Your task to perform on an android device: Show the shopping cart on amazon. Search for "razer thresher" on amazon, select the first entry, add it to the cart, then select checkout. Image 0: 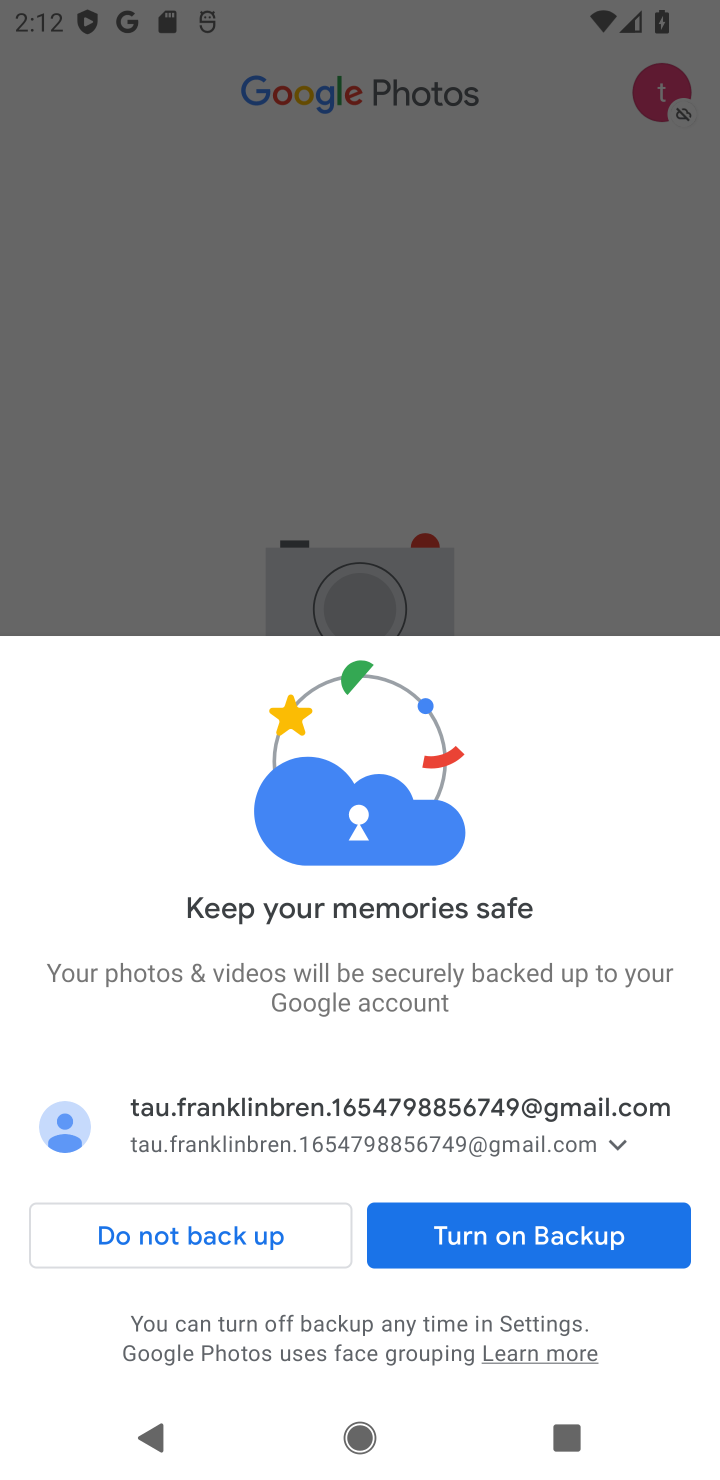
Step 0: press home button
Your task to perform on an android device: Show the shopping cart on amazon. Search for "razer thresher" on amazon, select the first entry, add it to the cart, then select checkout. Image 1: 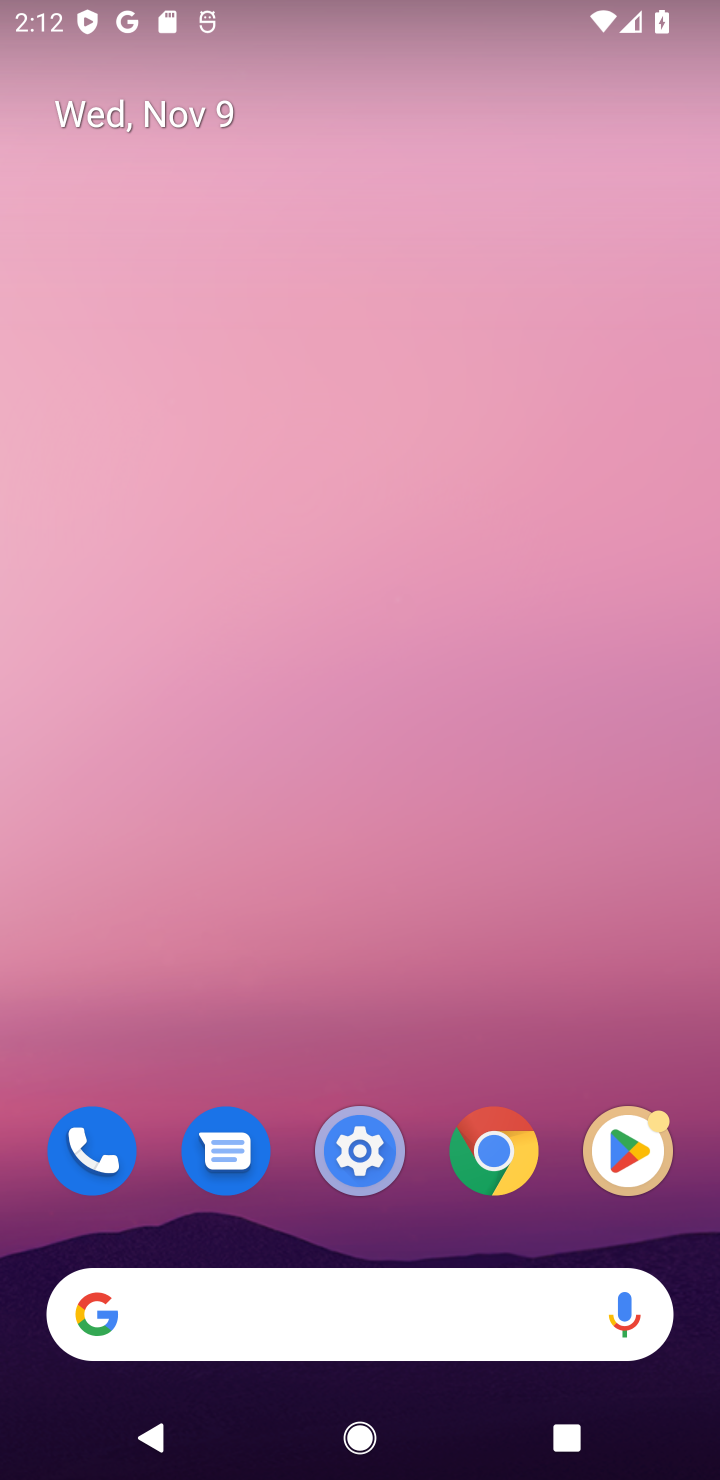
Step 1: click (374, 1321)
Your task to perform on an android device: Show the shopping cart on amazon. Search for "razer thresher" on amazon, select the first entry, add it to the cart, then select checkout. Image 2: 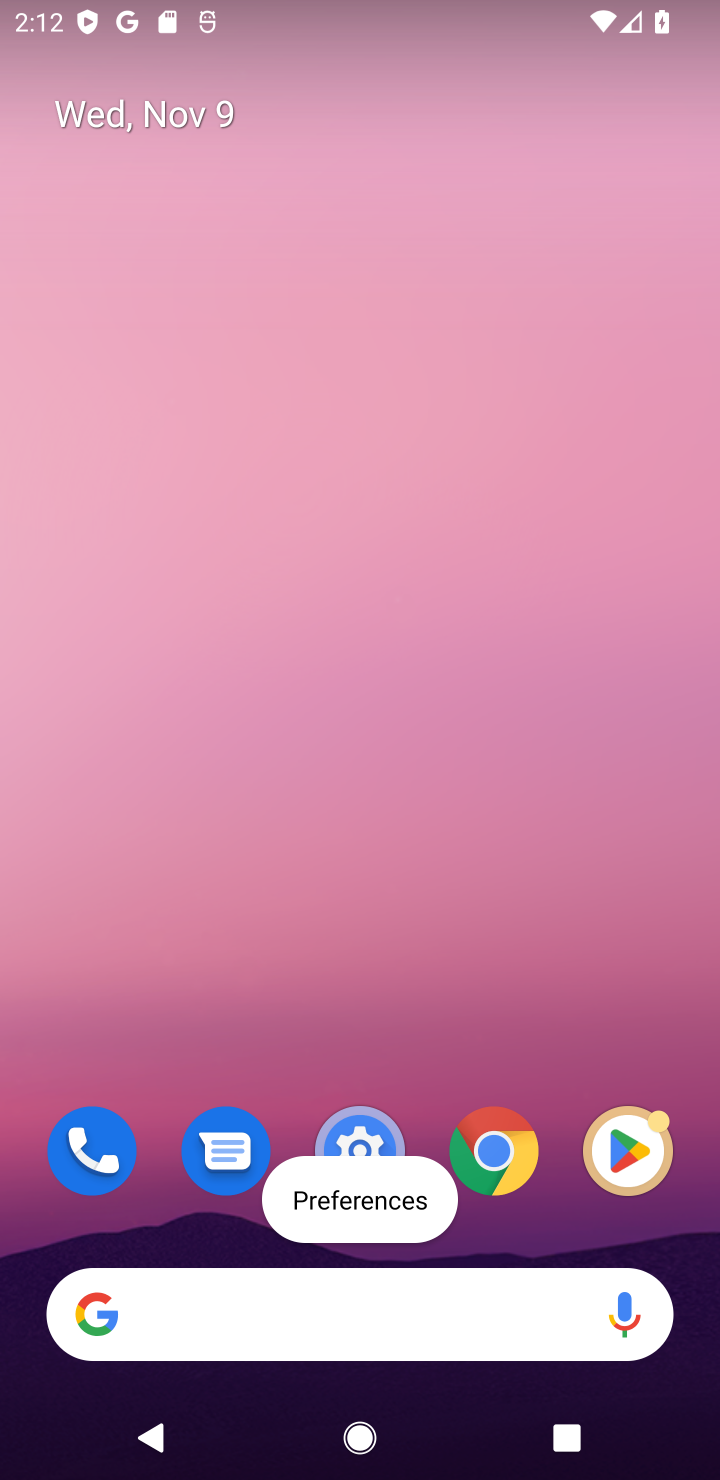
Step 2: click (257, 1321)
Your task to perform on an android device: Show the shopping cart on amazon. Search for "razer thresher" on amazon, select the first entry, add it to the cart, then select checkout. Image 3: 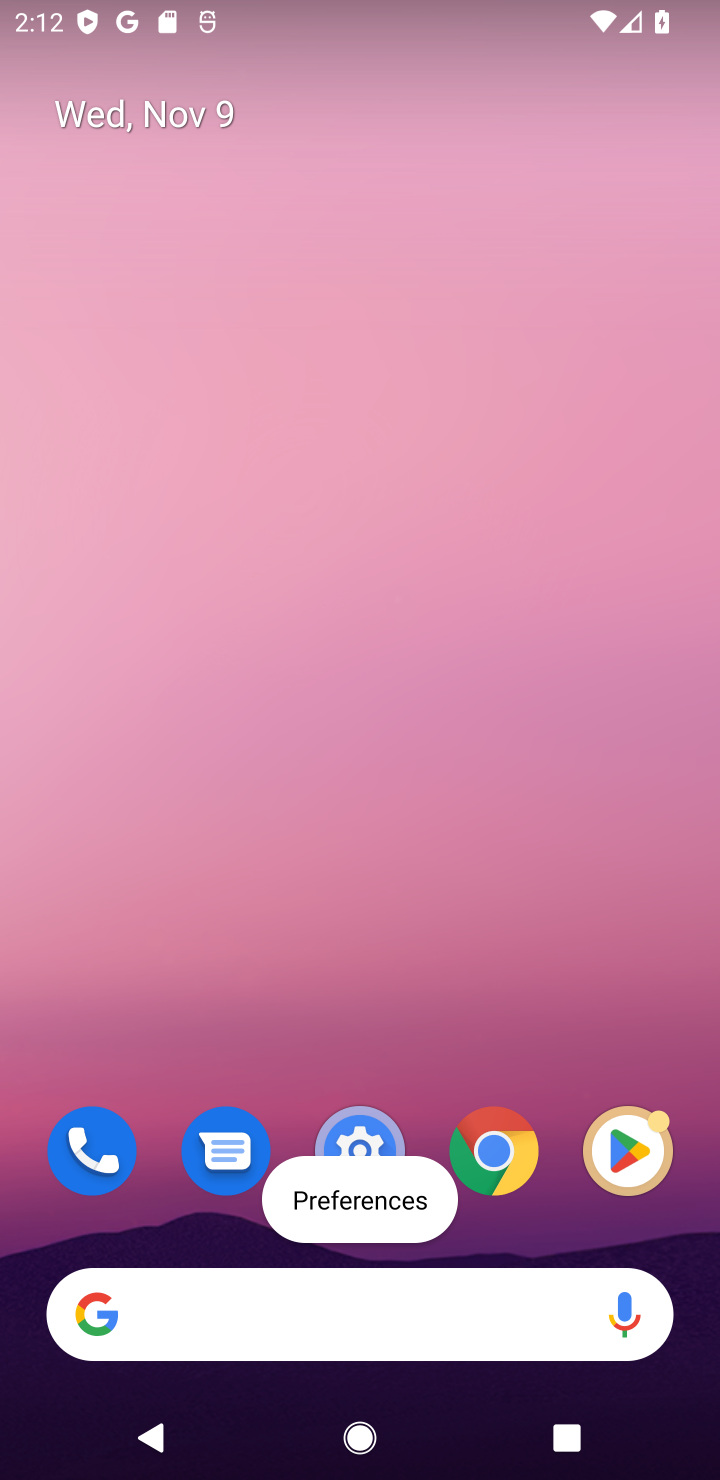
Step 3: click (257, 1321)
Your task to perform on an android device: Show the shopping cart on amazon. Search for "razer thresher" on amazon, select the first entry, add it to the cart, then select checkout. Image 4: 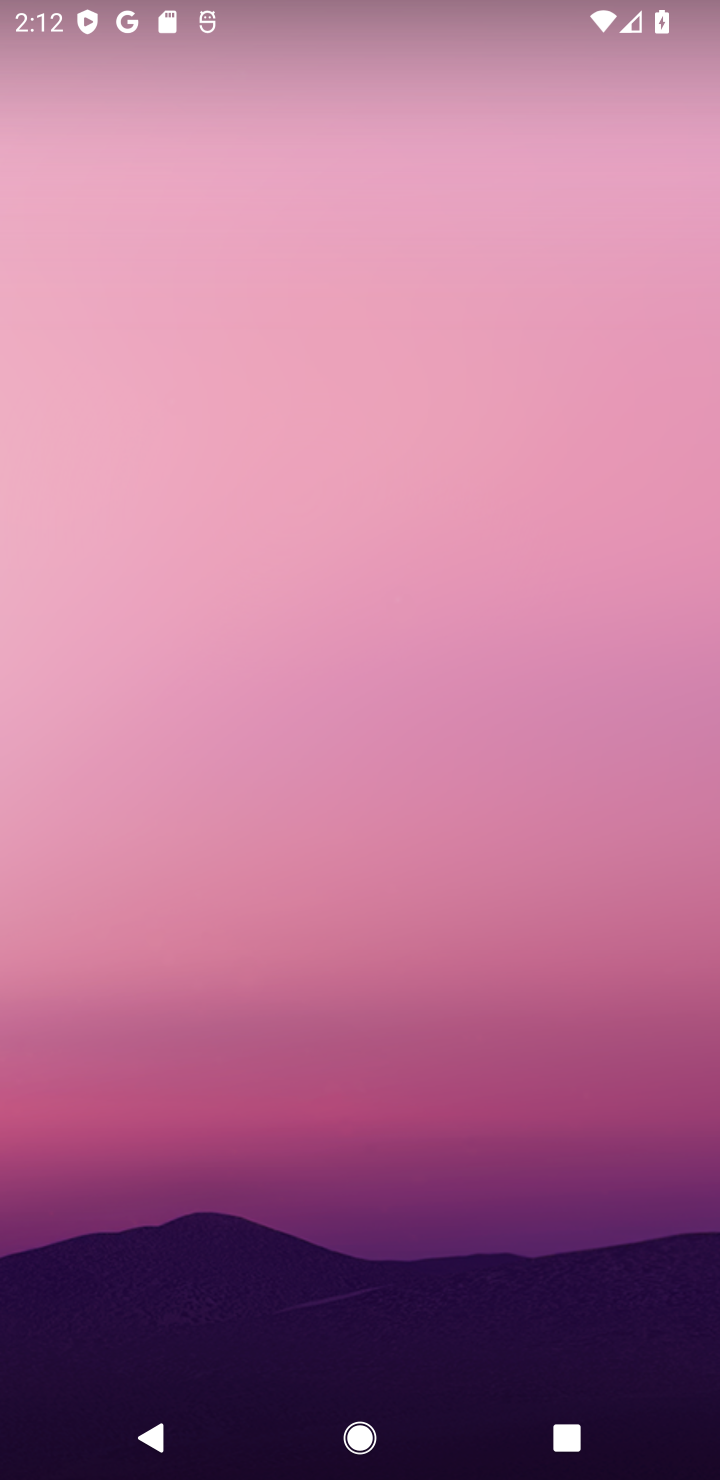
Step 4: click (254, 1319)
Your task to perform on an android device: Show the shopping cart on amazon. Search for "razer thresher" on amazon, select the first entry, add it to the cart, then select checkout. Image 5: 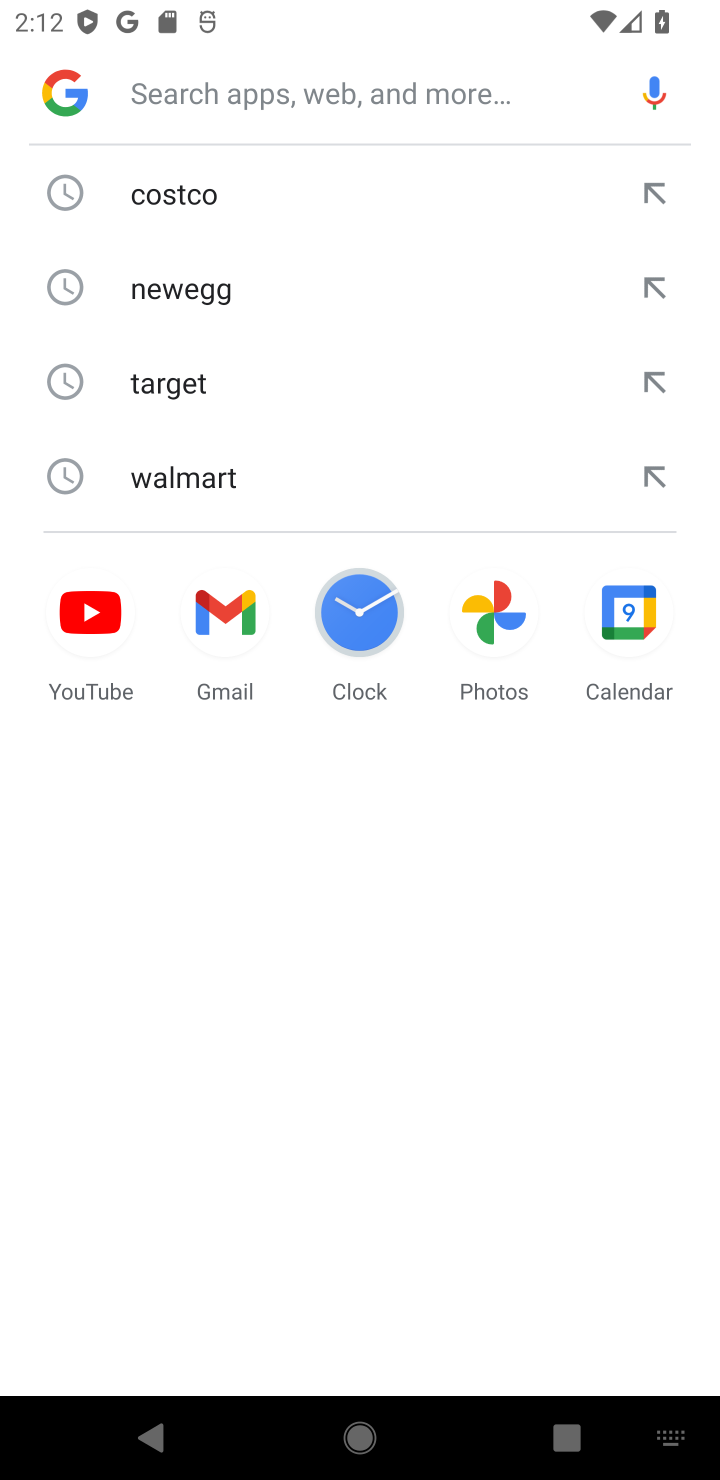
Step 5: type "amazon"
Your task to perform on an android device: Show the shopping cart on amazon. Search for "razer thresher" on amazon, select the first entry, add it to the cart, then select checkout. Image 6: 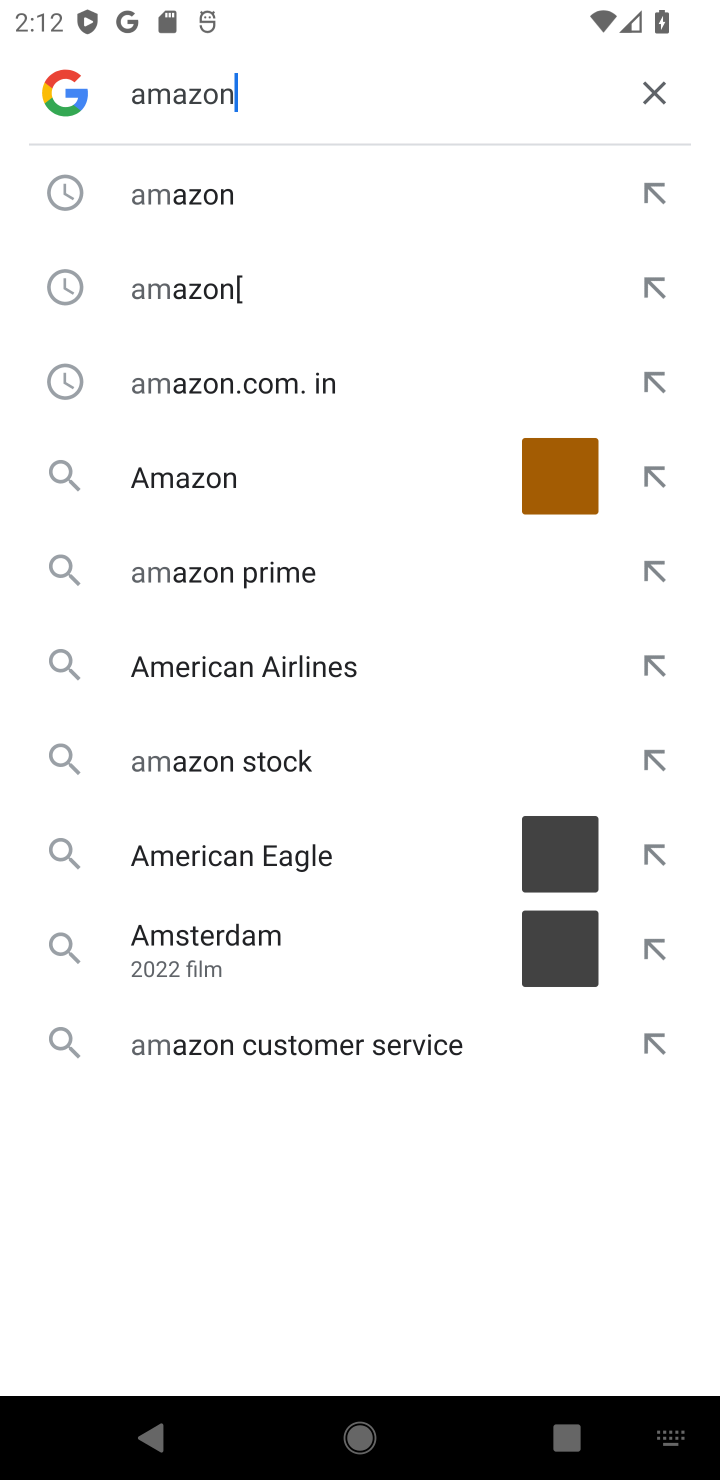
Step 6: type ""
Your task to perform on an android device: Show the shopping cart on amazon. Search for "razer thresher" on amazon, select the first entry, add it to the cart, then select checkout. Image 7: 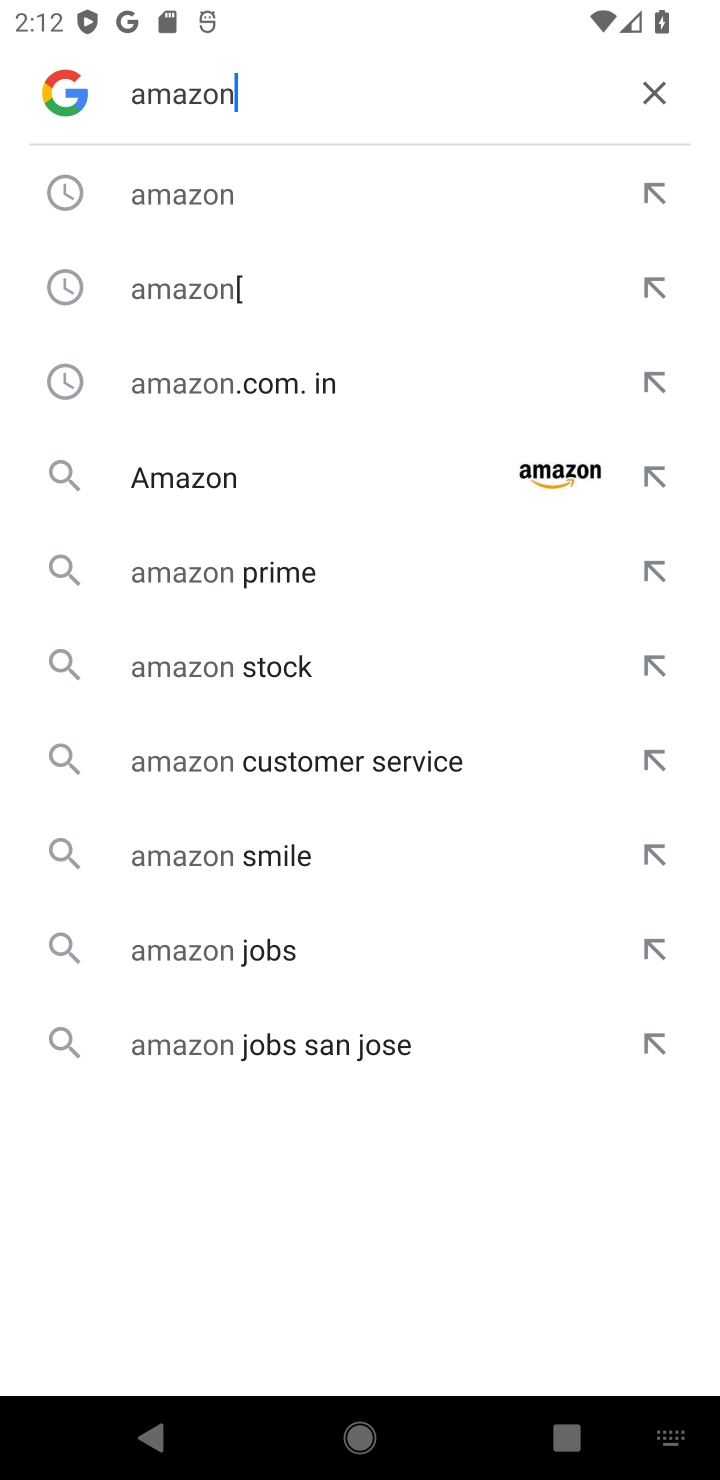
Step 7: press enter
Your task to perform on an android device: Show the shopping cart on amazon. Search for "razer thresher" on amazon, select the first entry, add it to the cart, then select checkout. Image 8: 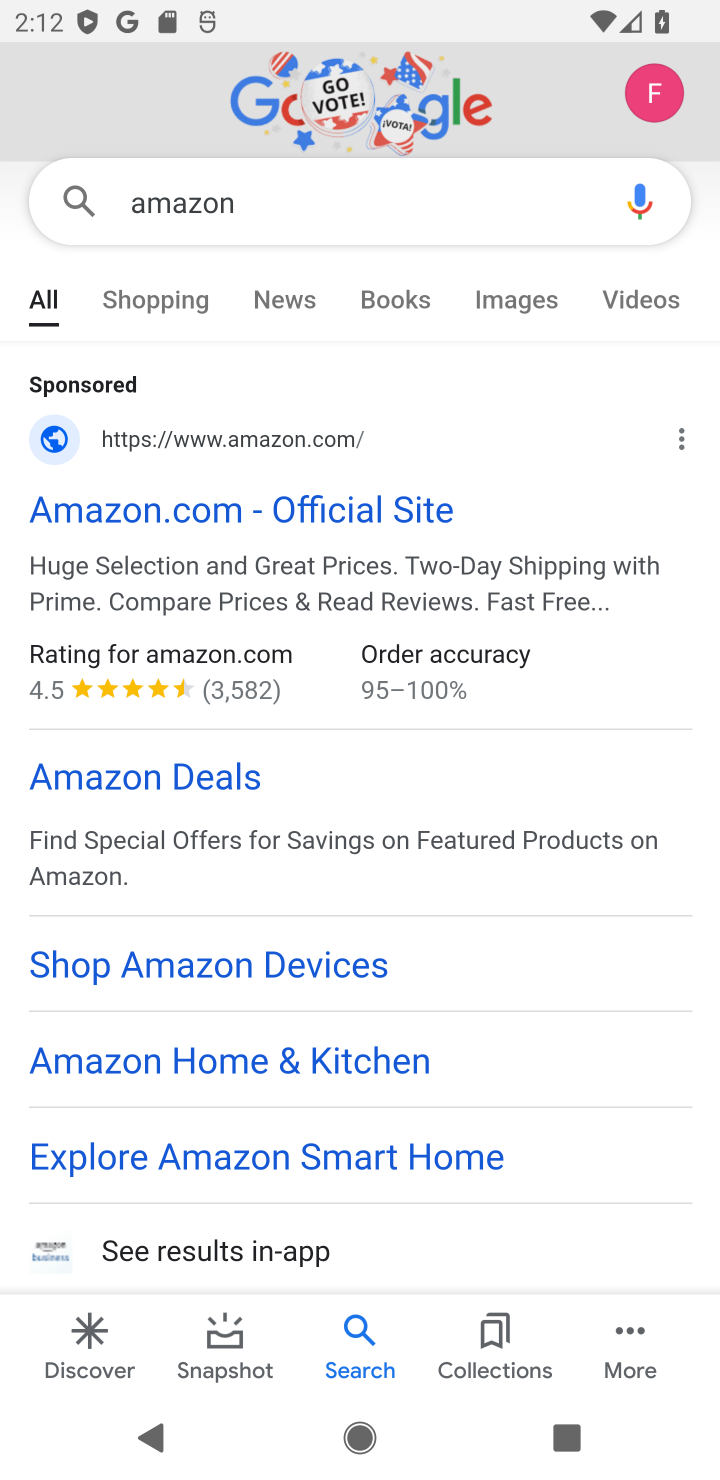
Step 8: click (184, 516)
Your task to perform on an android device: Show the shopping cart on amazon. Search for "razer thresher" on amazon, select the first entry, add it to the cart, then select checkout. Image 9: 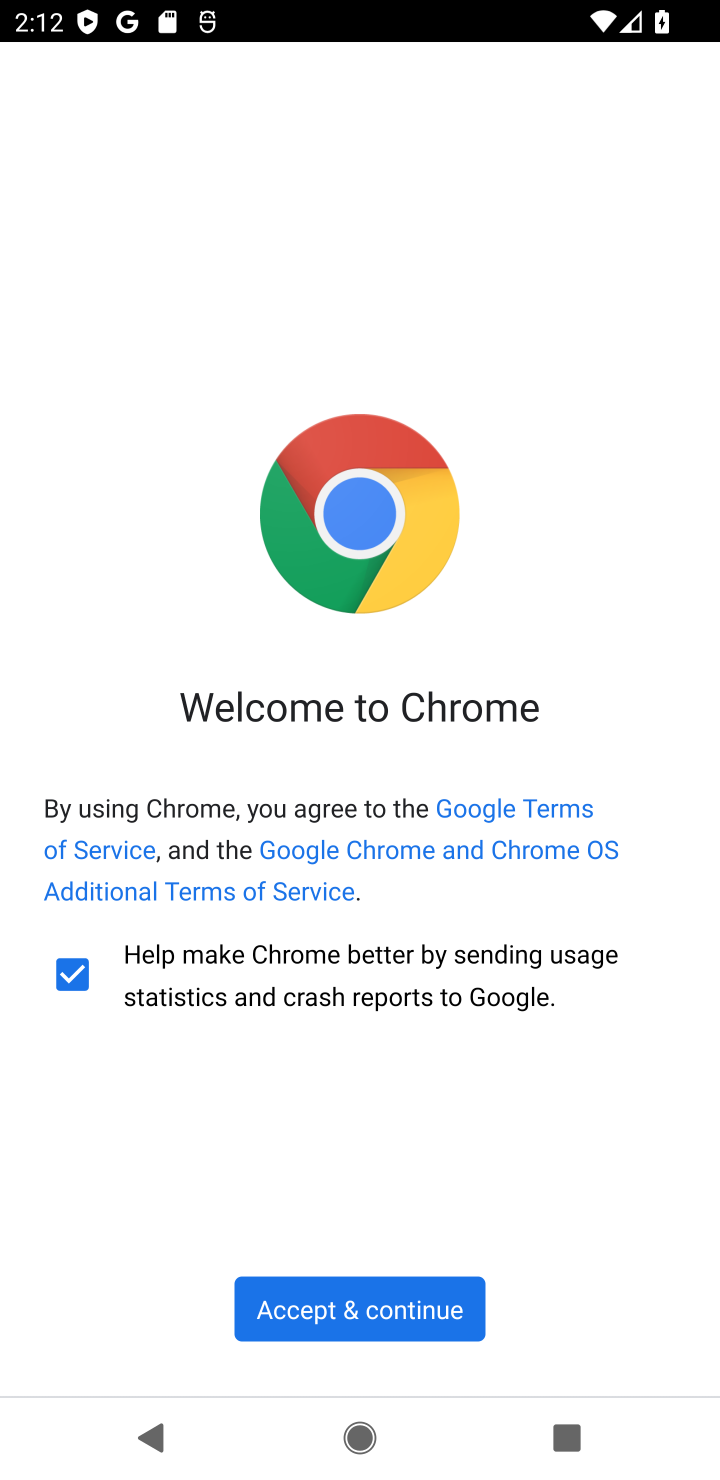
Step 9: click (421, 1295)
Your task to perform on an android device: Show the shopping cart on amazon. Search for "razer thresher" on amazon, select the first entry, add it to the cart, then select checkout. Image 10: 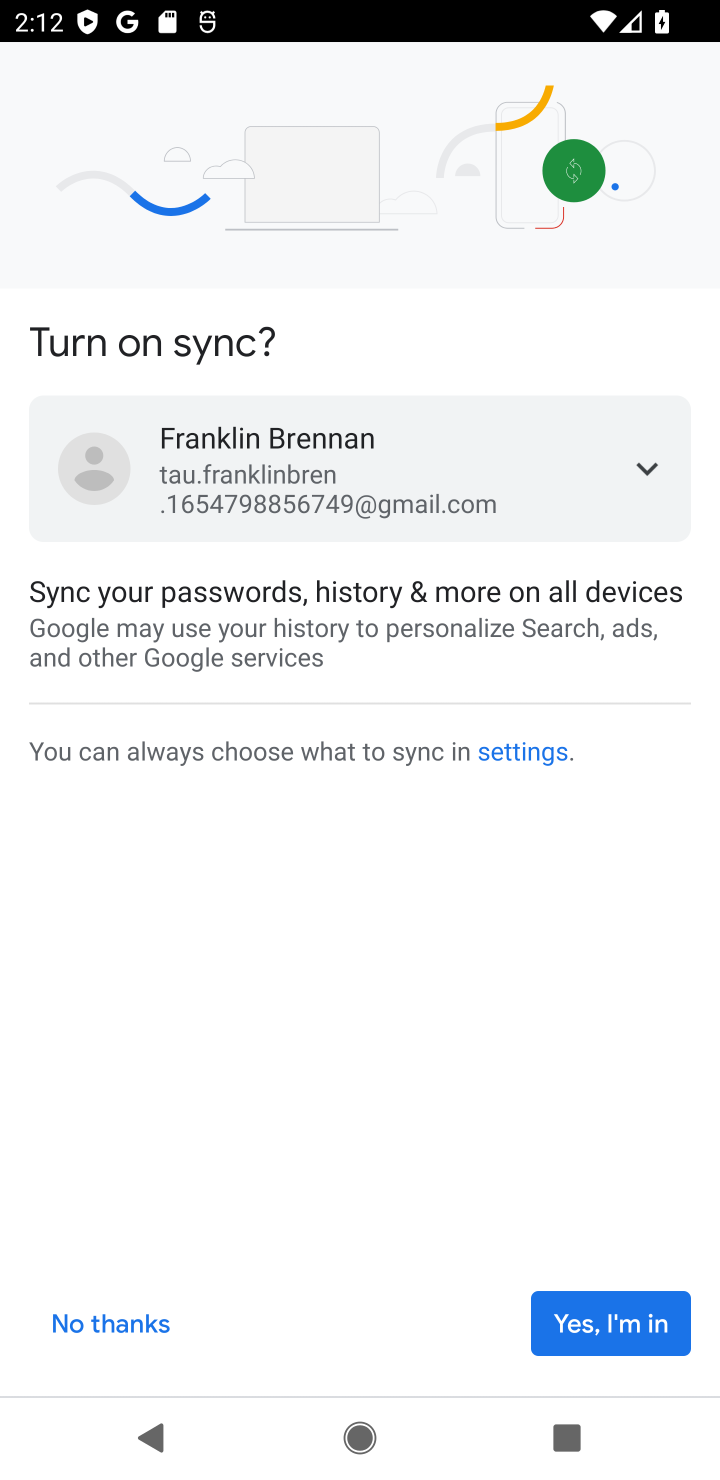
Step 10: click (649, 1340)
Your task to perform on an android device: Show the shopping cart on amazon. Search for "razer thresher" on amazon, select the first entry, add it to the cart, then select checkout. Image 11: 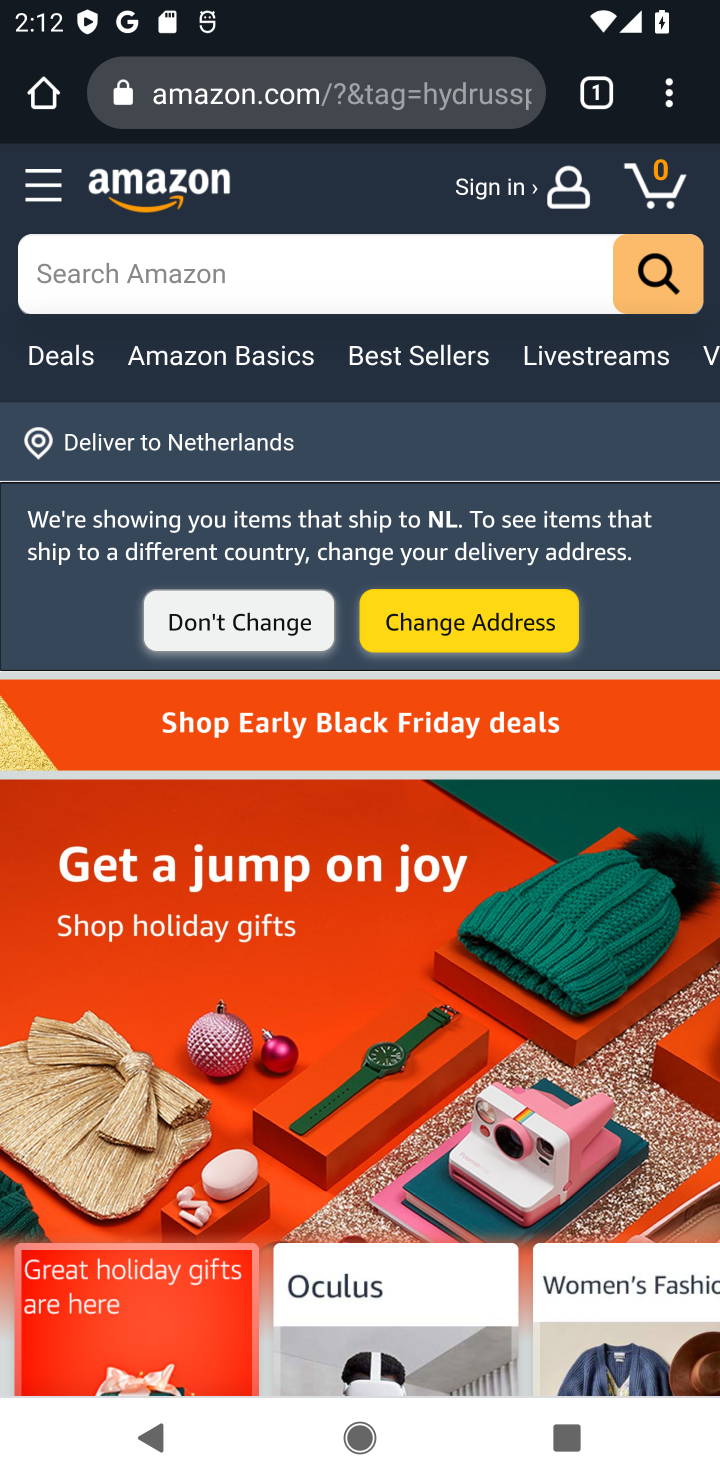
Step 11: click (164, 269)
Your task to perform on an android device: Show the shopping cart on amazon. Search for "razer thresher" on amazon, select the first entry, add it to the cart, then select checkout. Image 12: 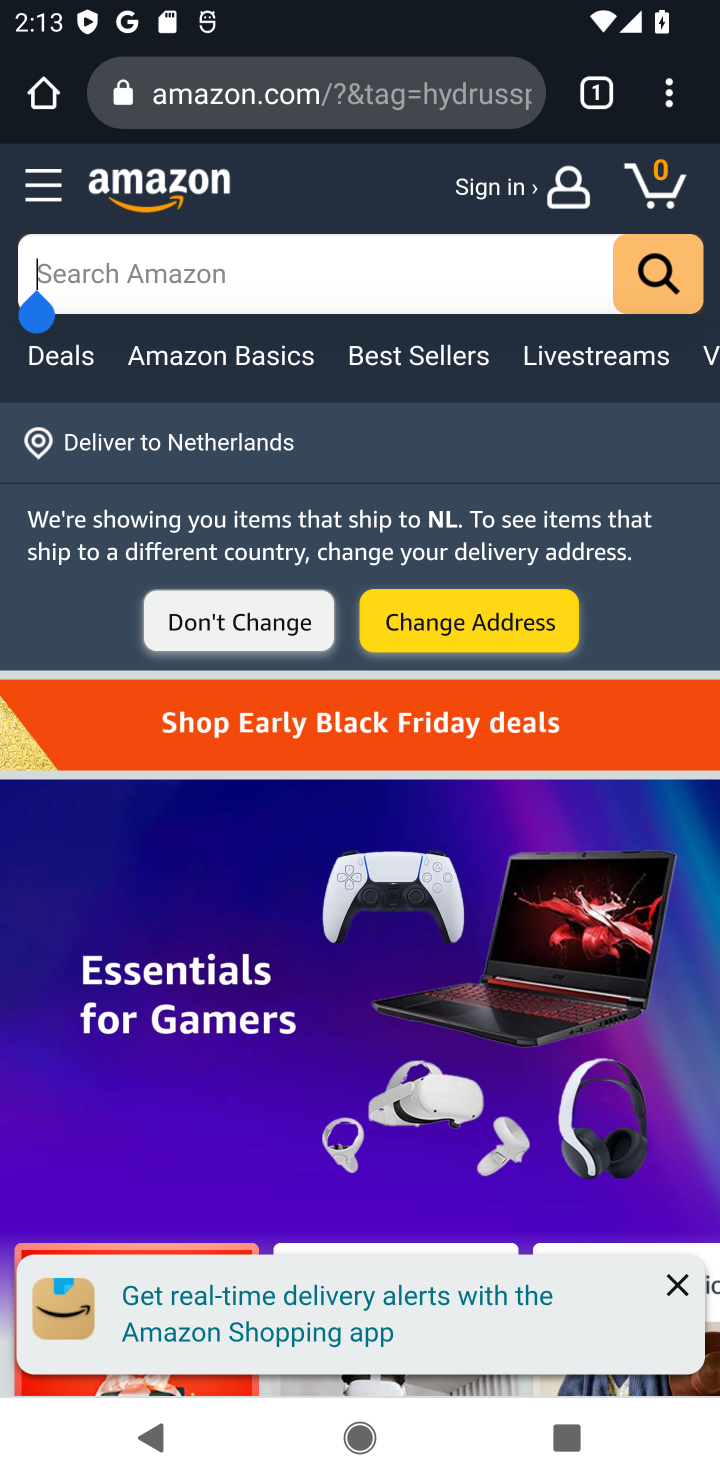
Step 12: type "razer thresher"
Your task to perform on an android device: Show the shopping cart on amazon. Search for "razer thresher" on amazon, select the first entry, add it to the cart, then select checkout. Image 13: 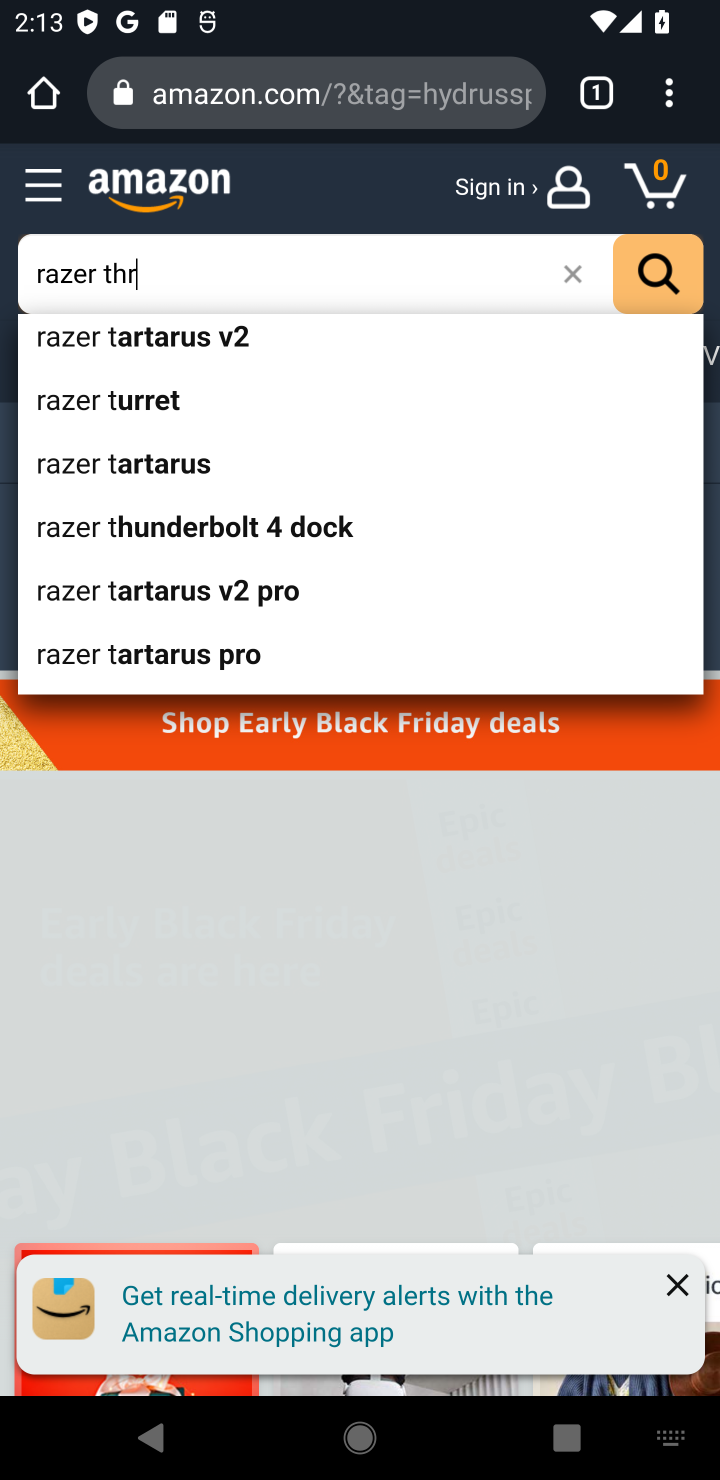
Step 13: press enter
Your task to perform on an android device: Show the shopping cart on amazon. Search for "razer thresher" on amazon, select the first entry, add it to the cart, then select checkout. Image 14: 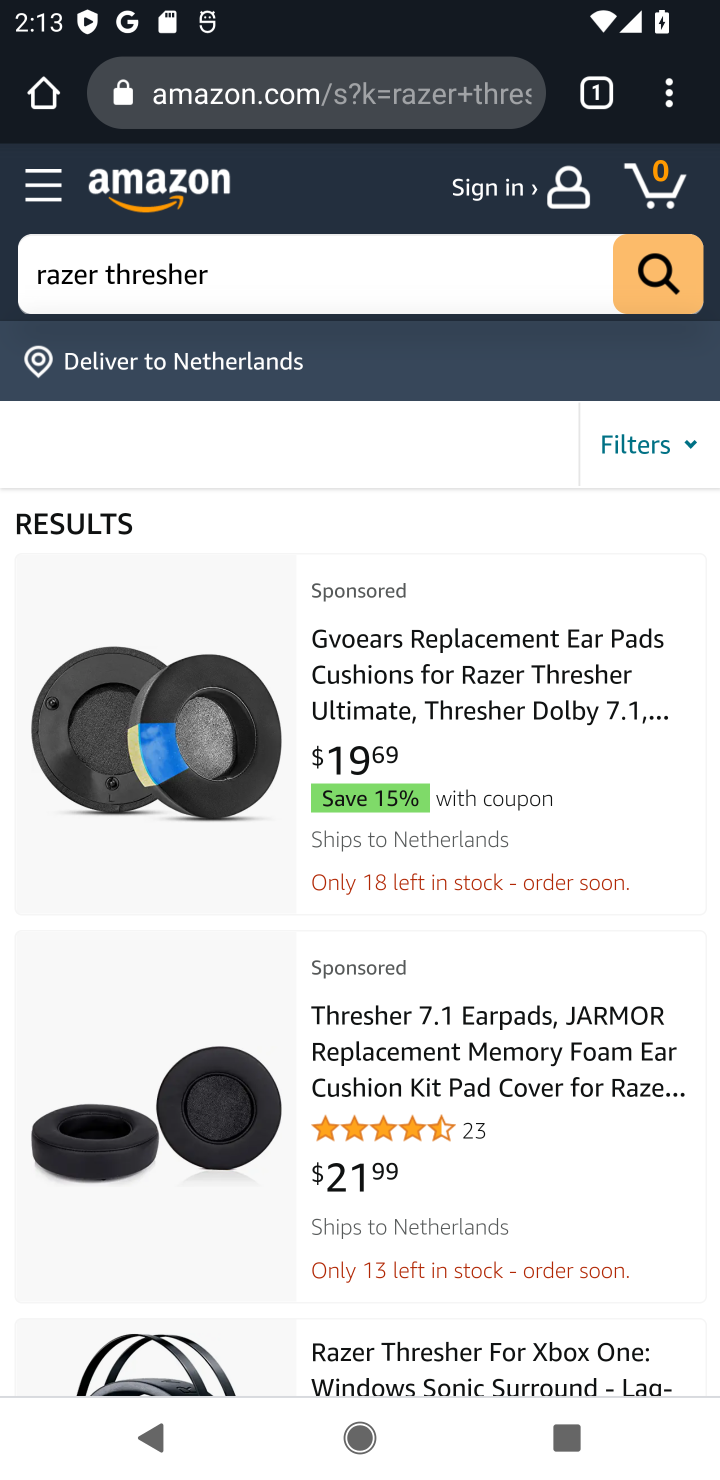
Step 14: click (645, 289)
Your task to perform on an android device: Show the shopping cart on amazon. Search for "razer thresher" on amazon, select the first entry, add it to the cart, then select checkout. Image 15: 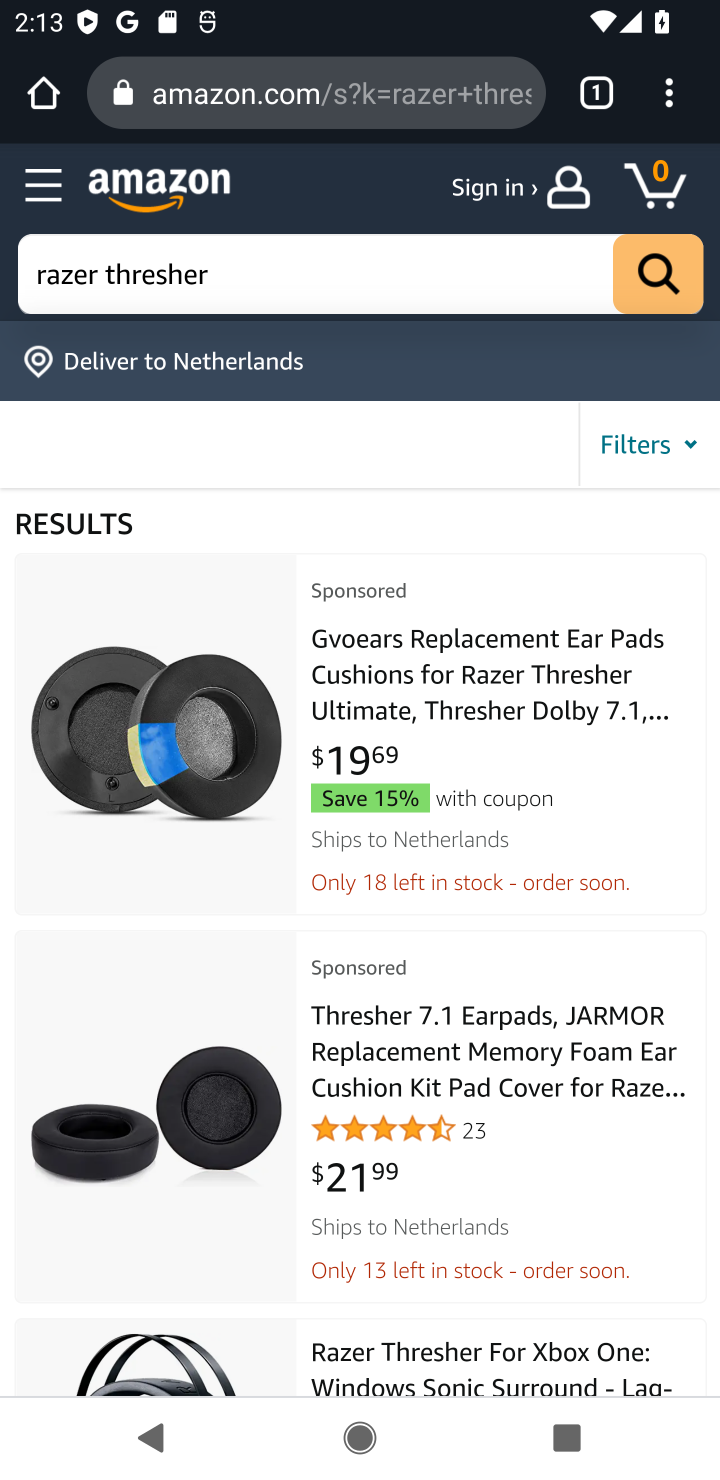
Step 15: click (380, 696)
Your task to perform on an android device: Show the shopping cart on amazon. Search for "razer thresher" on amazon, select the first entry, add it to the cart, then select checkout. Image 16: 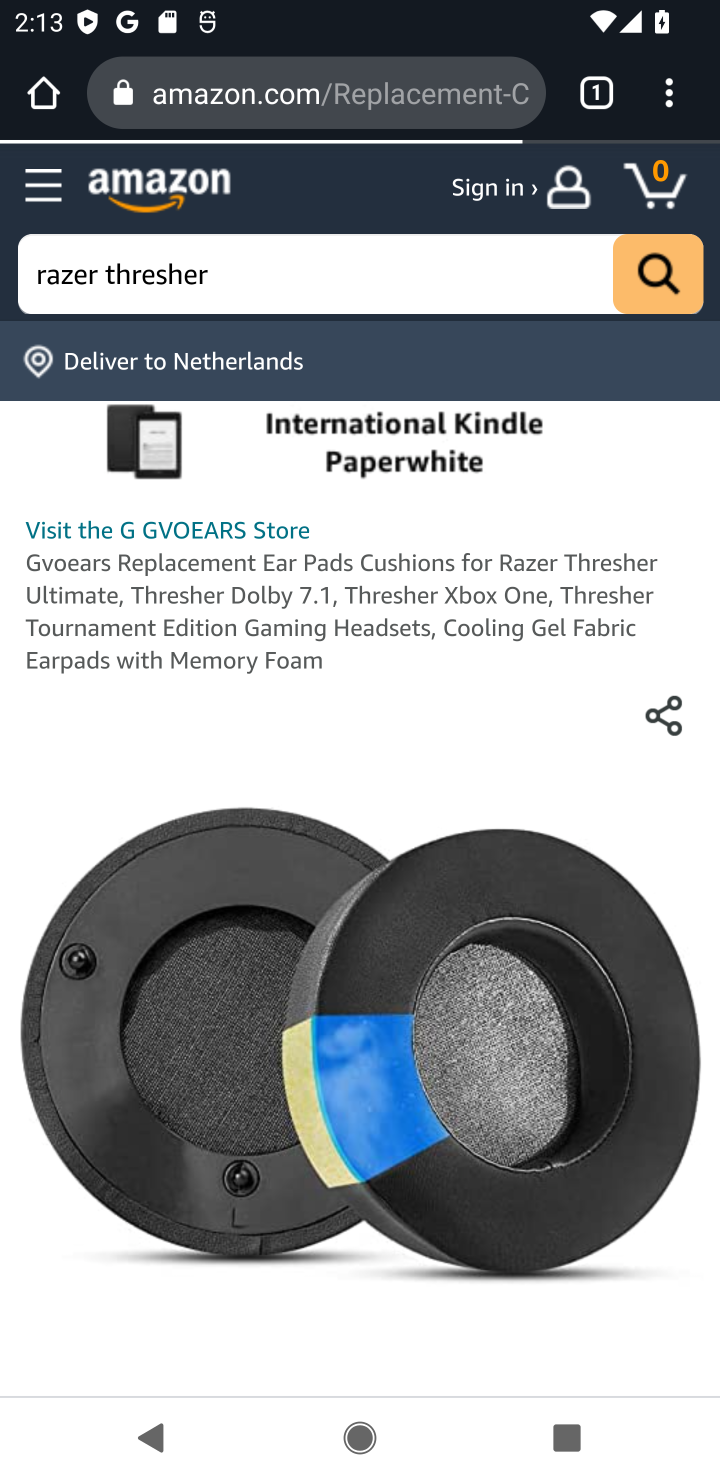
Step 16: drag from (334, 1353) to (341, 591)
Your task to perform on an android device: Show the shopping cart on amazon. Search for "razer thresher" on amazon, select the first entry, add it to the cart, then select checkout. Image 17: 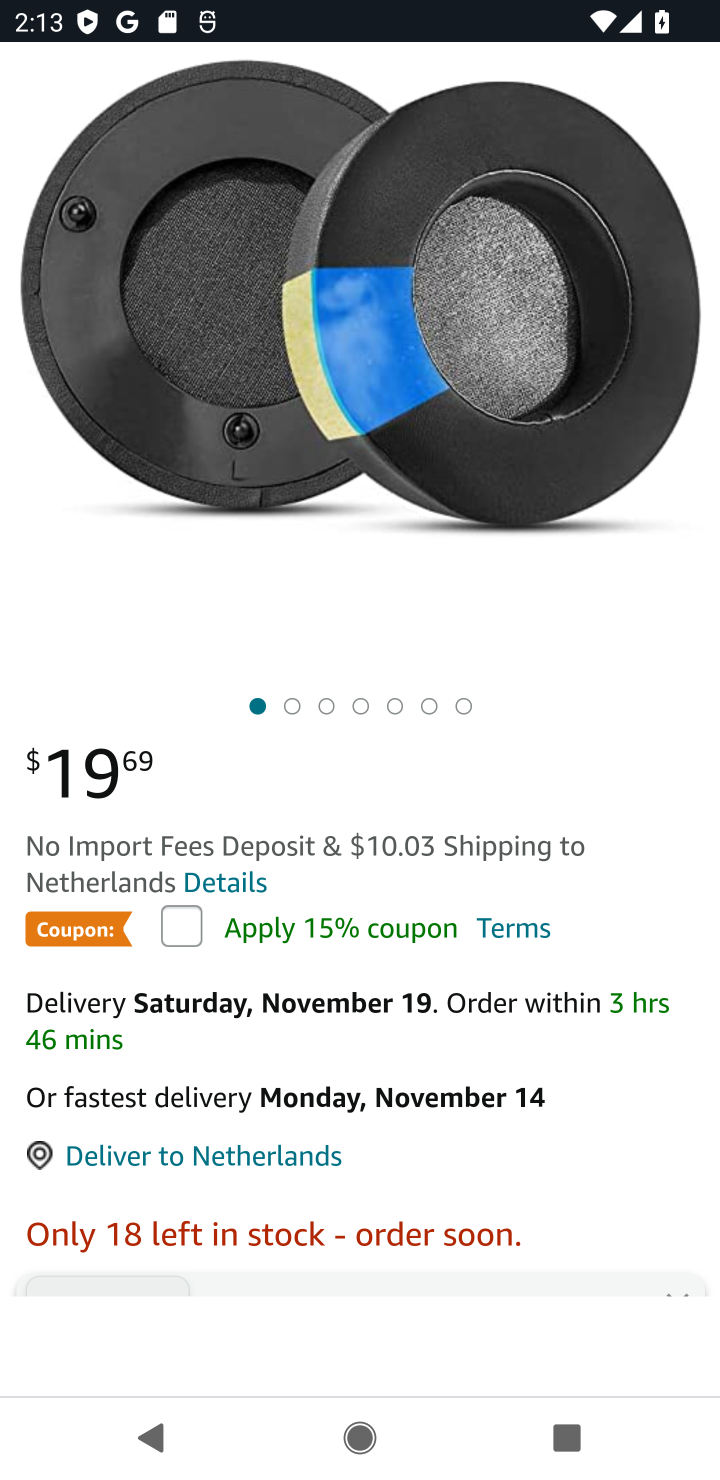
Step 17: drag from (500, 1084) to (497, 745)
Your task to perform on an android device: Show the shopping cart on amazon. Search for "razer thresher" on amazon, select the first entry, add it to the cart, then select checkout. Image 18: 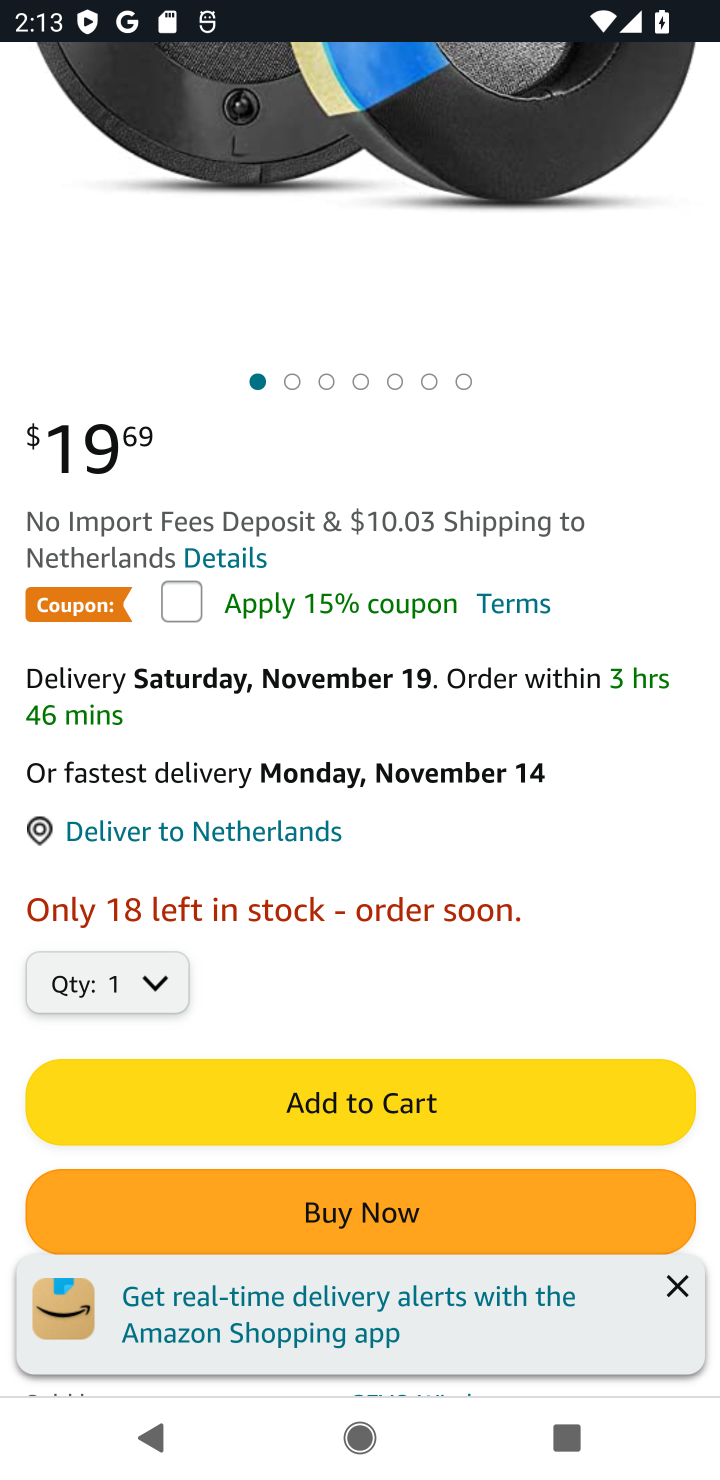
Step 18: click (393, 1102)
Your task to perform on an android device: Show the shopping cart on amazon. Search for "razer thresher" on amazon, select the first entry, add it to the cart, then select checkout. Image 19: 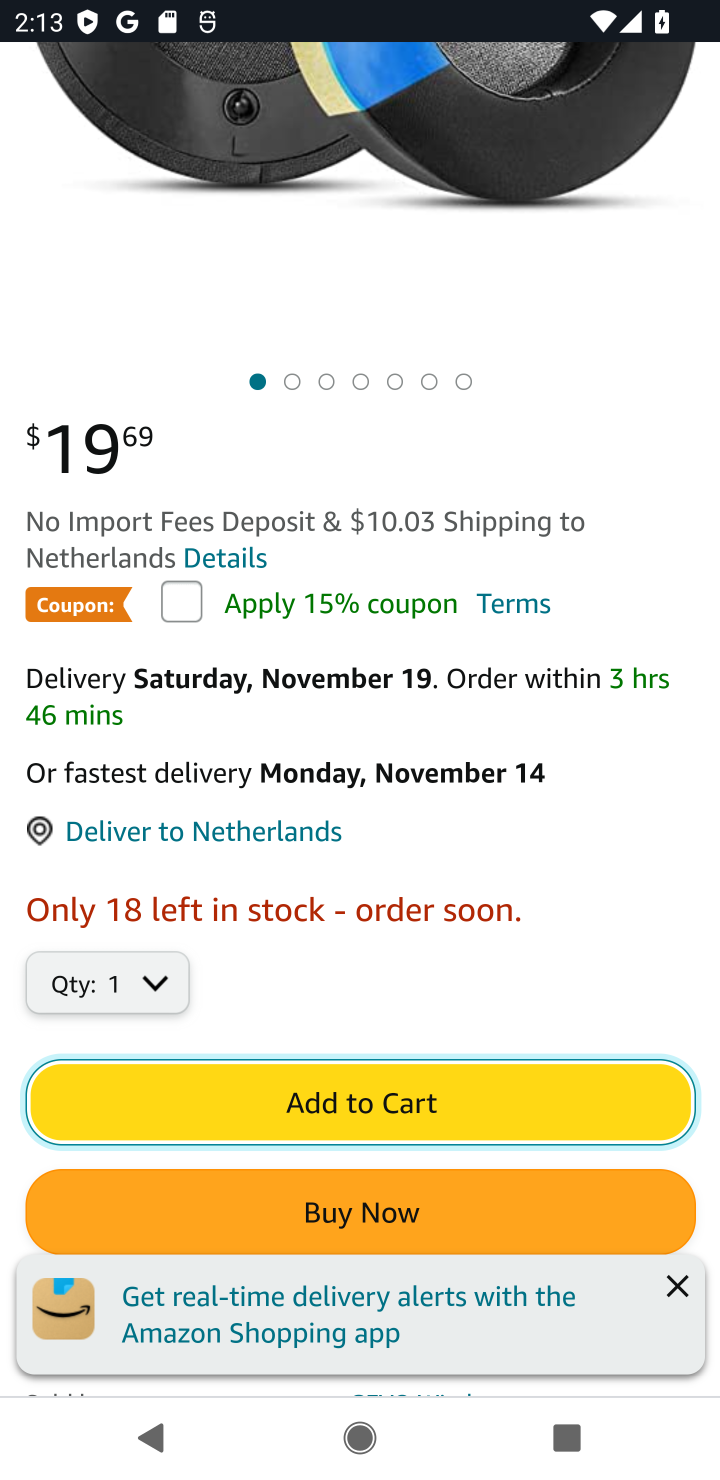
Step 19: click (393, 1102)
Your task to perform on an android device: Show the shopping cart on amazon. Search for "razer thresher" on amazon, select the first entry, add it to the cart, then select checkout. Image 20: 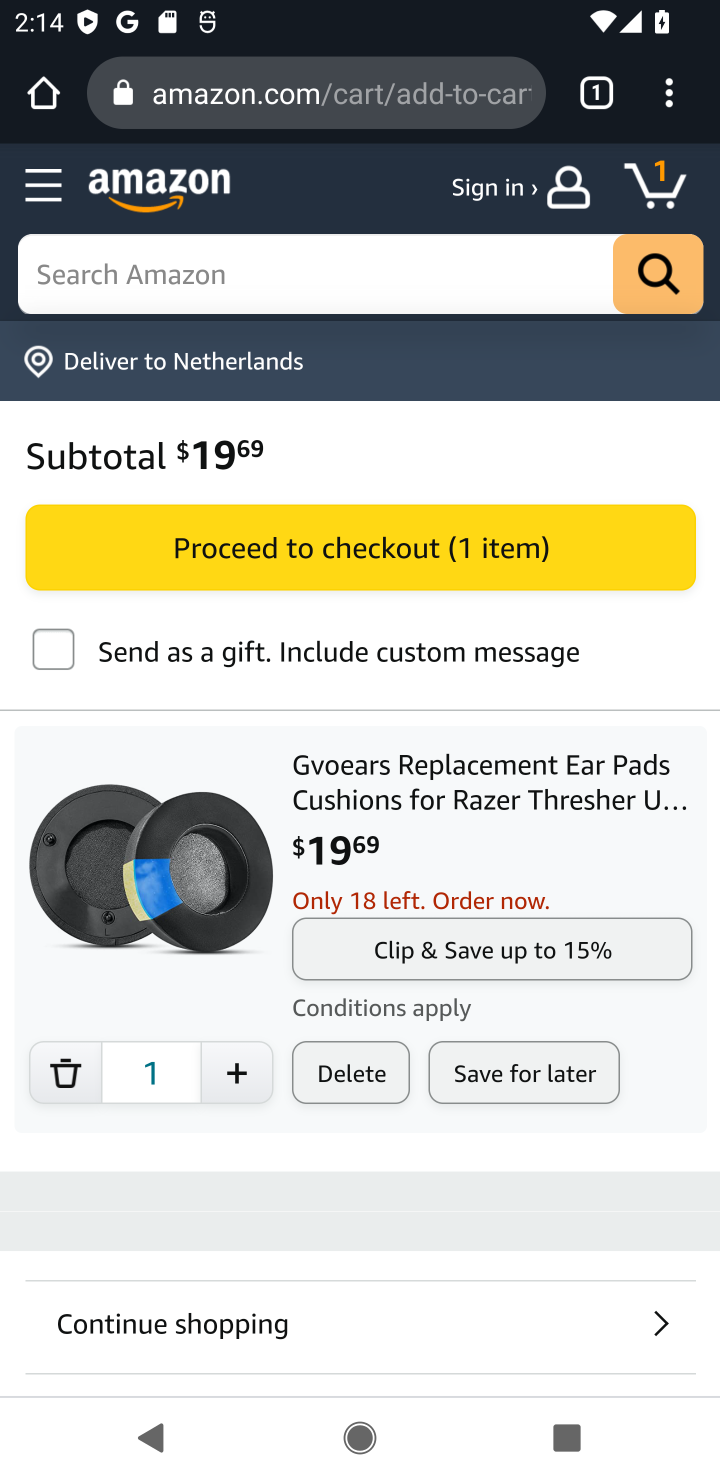
Step 20: click (668, 181)
Your task to perform on an android device: Show the shopping cart on amazon. Search for "razer thresher" on amazon, select the first entry, add it to the cart, then select checkout. Image 21: 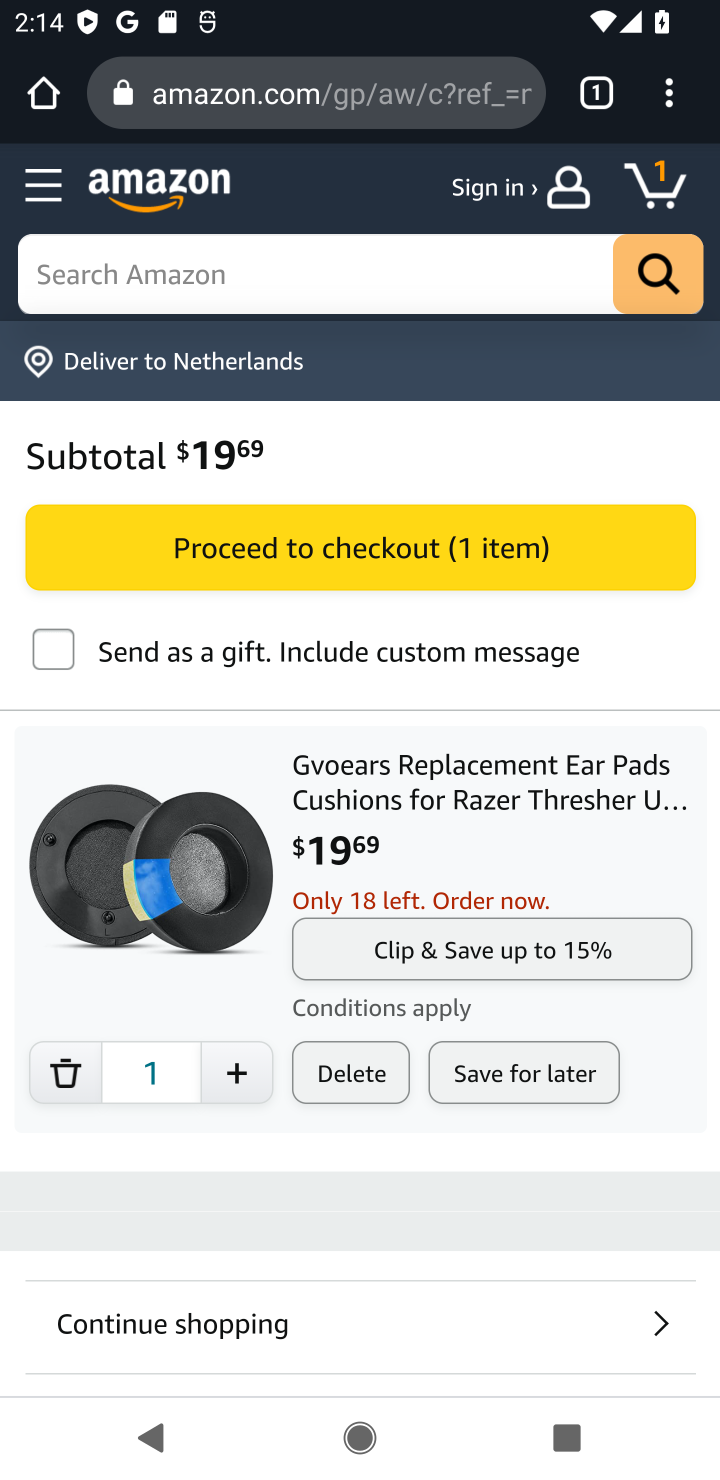
Step 21: click (315, 534)
Your task to perform on an android device: Show the shopping cart on amazon. Search for "razer thresher" on amazon, select the first entry, add it to the cart, then select checkout. Image 22: 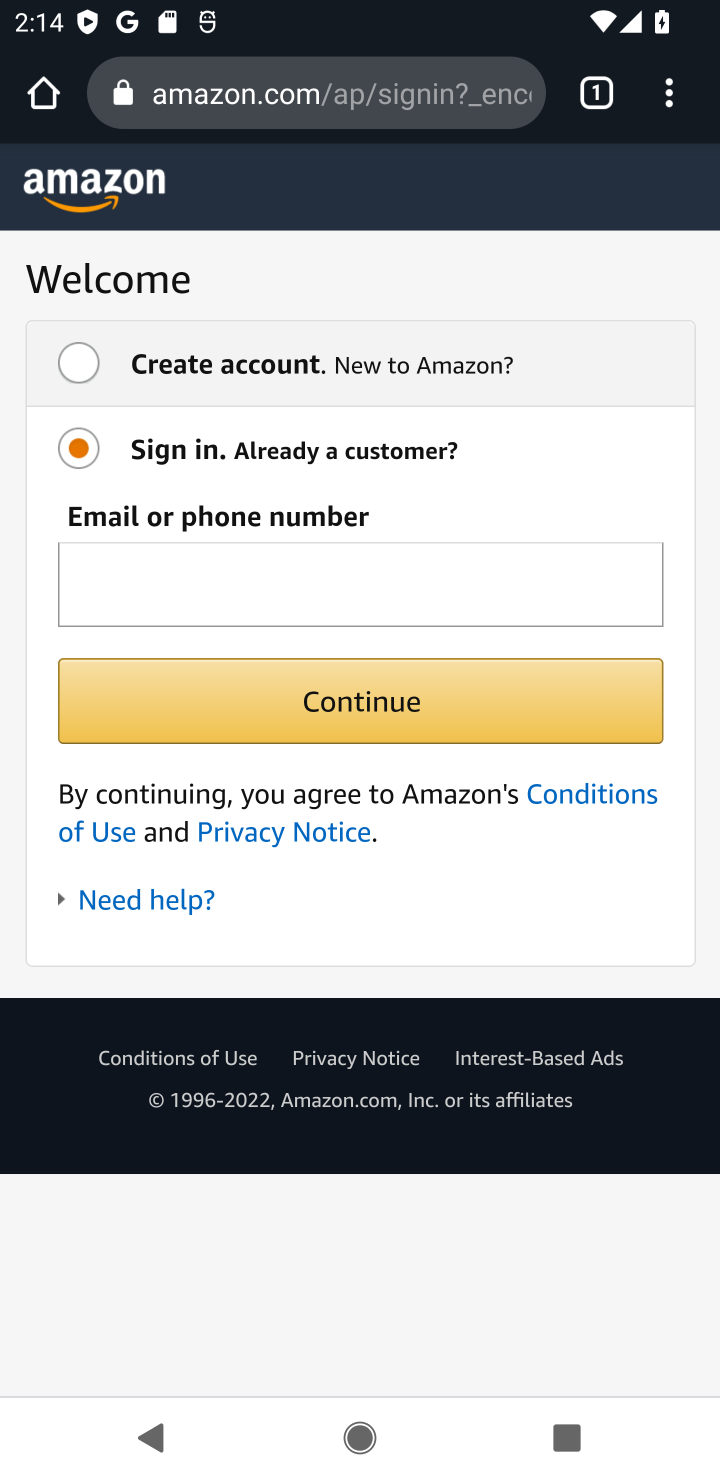
Step 22: task complete